Your task to perform on an android device: change the clock display to digital Image 0: 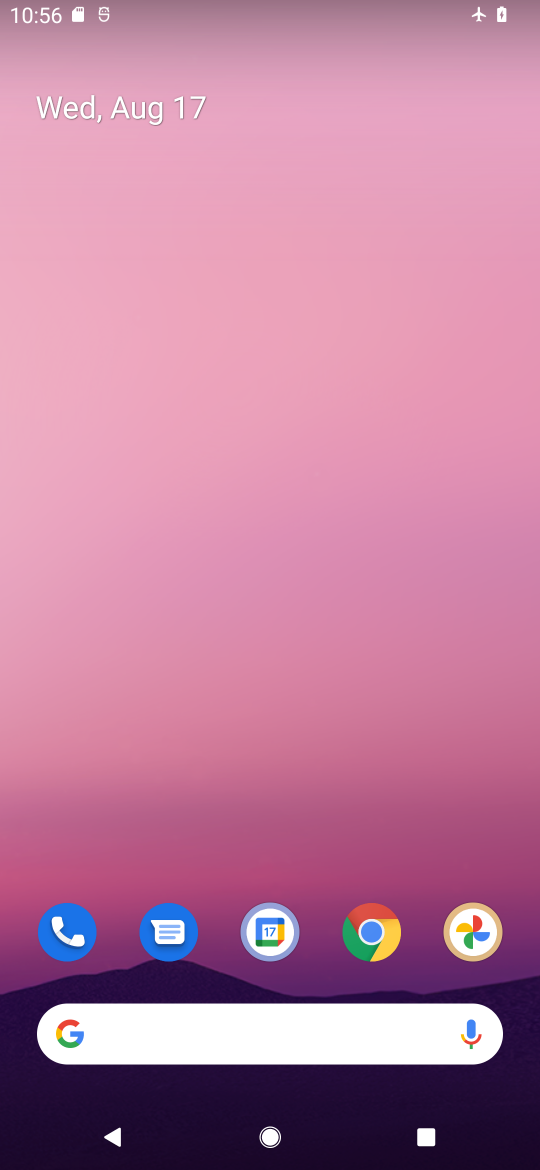
Step 0: drag from (328, 908) to (289, 19)
Your task to perform on an android device: change the clock display to digital Image 1: 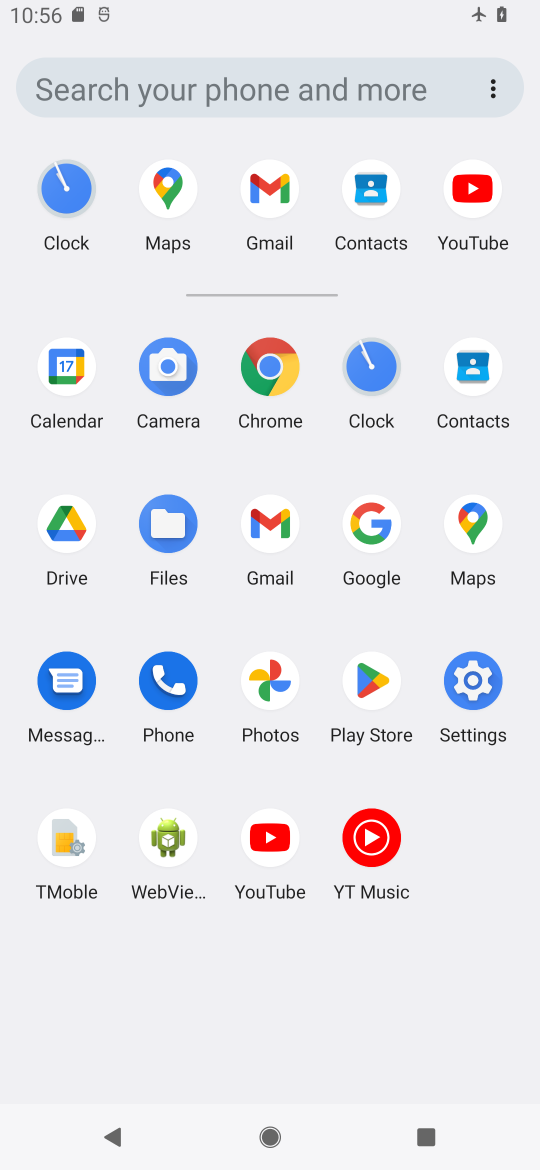
Step 1: click (360, 363)
Your task to perform on an android device: change the clock display to digital Image 2: 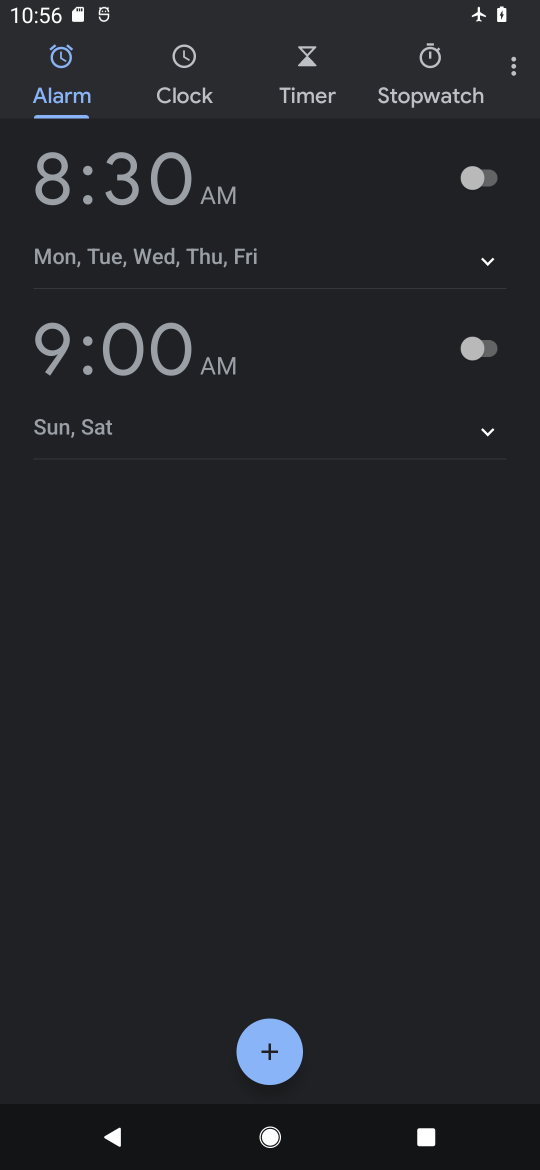
Step 2: click (513, 70)
Your task to perform on an android device: change the clock display to digital Image 3: 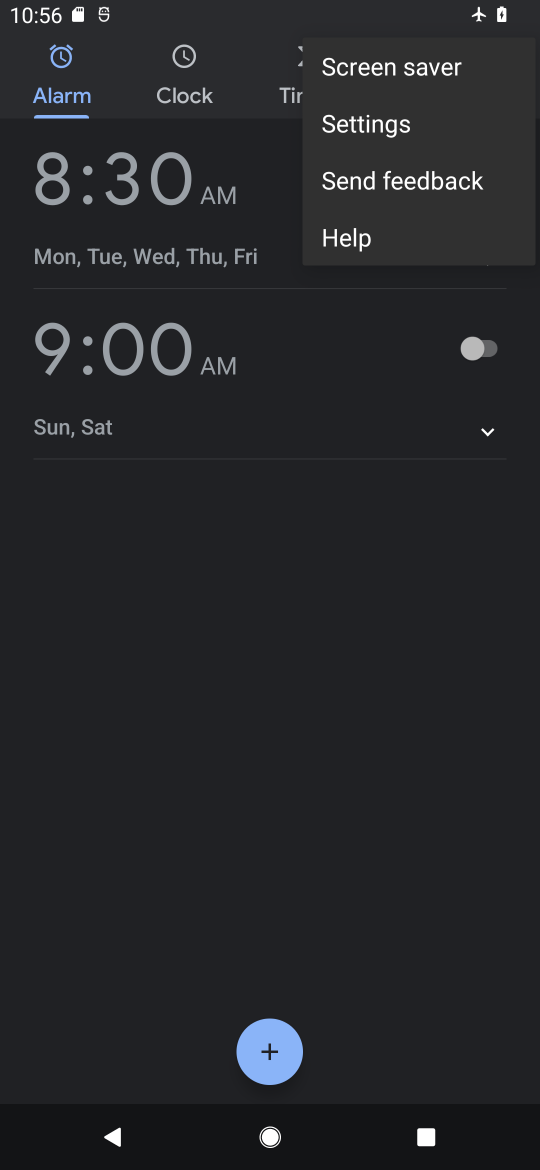
Step 3: click (365, 117)
Your task to perform on an android device: change the clock display to digital Image 4: 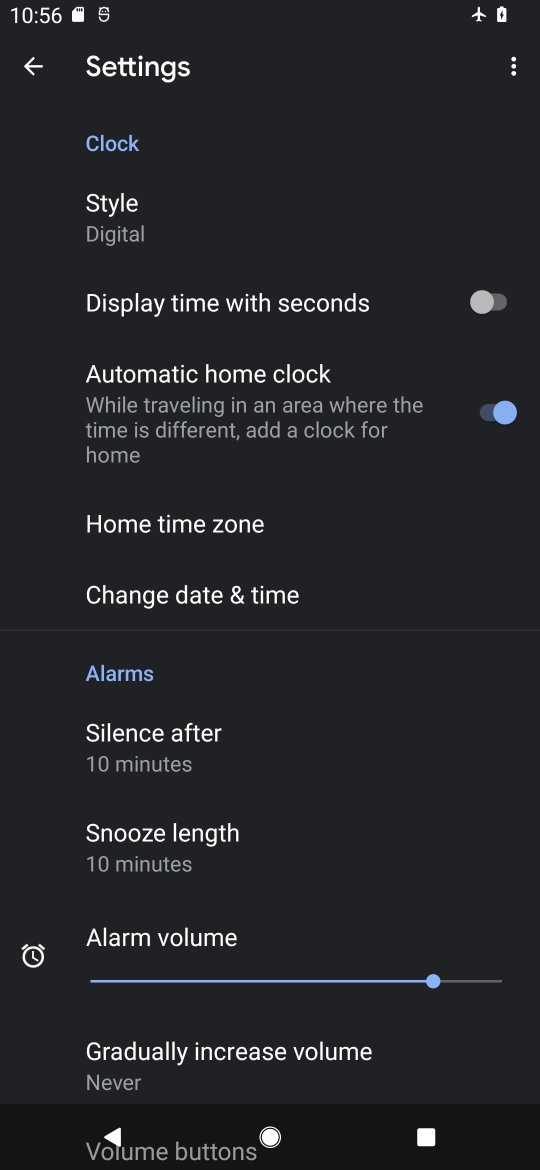
Step 4: task complete